Your task to perform on an android device: delete the emails in spam in the gmail app Image 0: 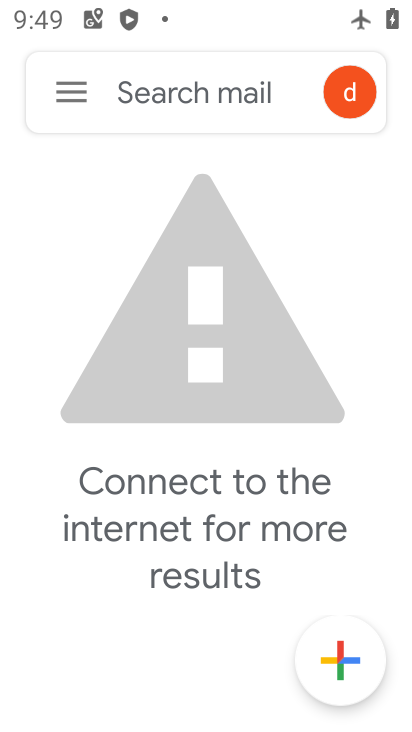
Step 0: press home button
Your task to perform on an android device: delete the emails in spam in the gmail app Image 1: 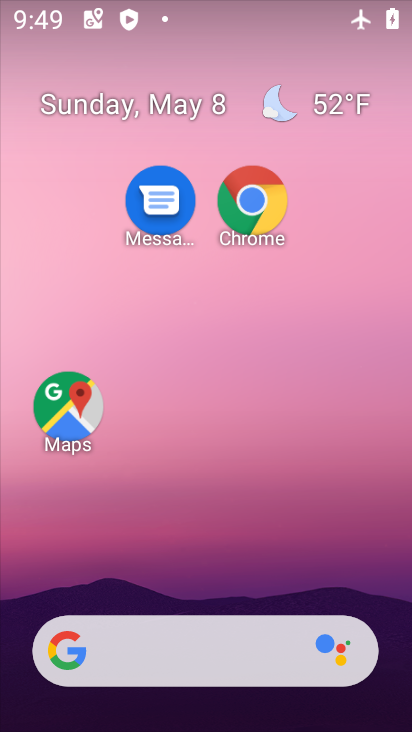
Step 1: drag from (216, 605) to (255, 6)
Your task to perform on an android device: delete the emails in spam in the gmail app Image 2: 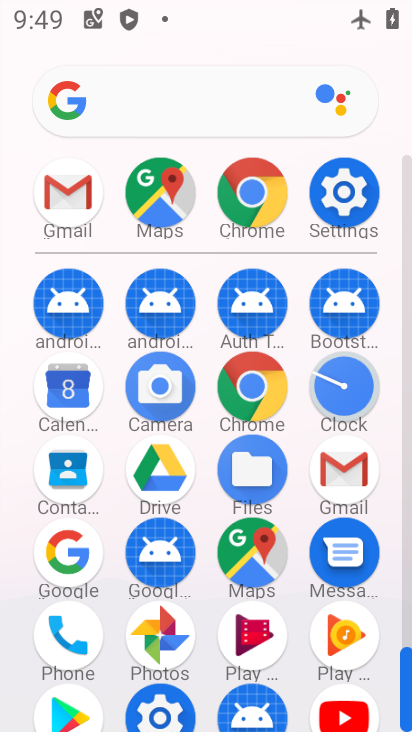
Step 2: click (345, 460)
Your task to perform on an android device: delete the emails in spam in the gmail app Image 3: 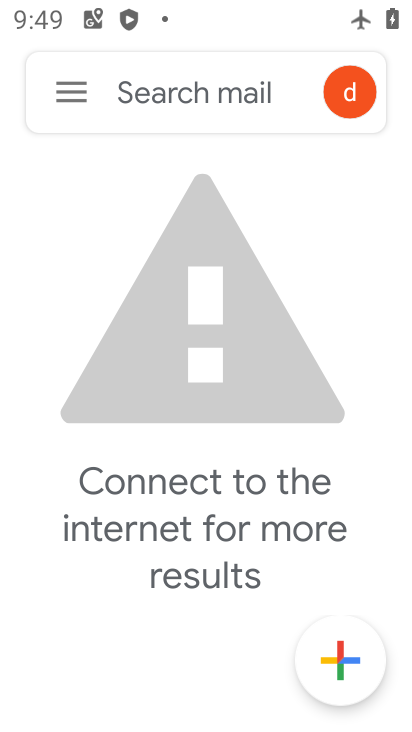
Step 3: click (67, 86)
Your task to perform on an android device: delete the emails in spam in the gmail app Image 4: 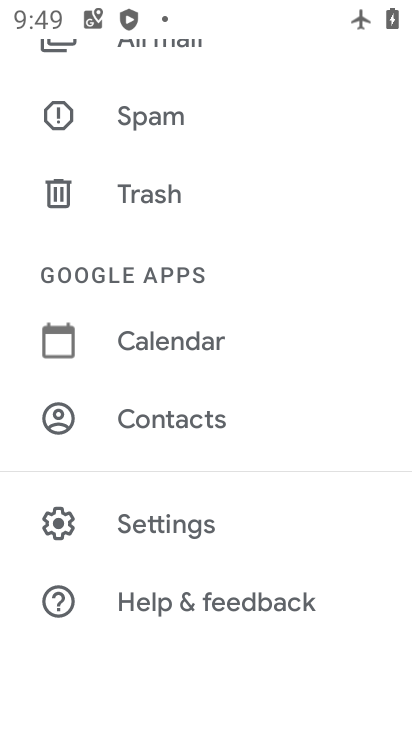
Step 4: click (164, 543)
Your task to perform on an android device: delete the emails in spam in the gmail app Image 5: 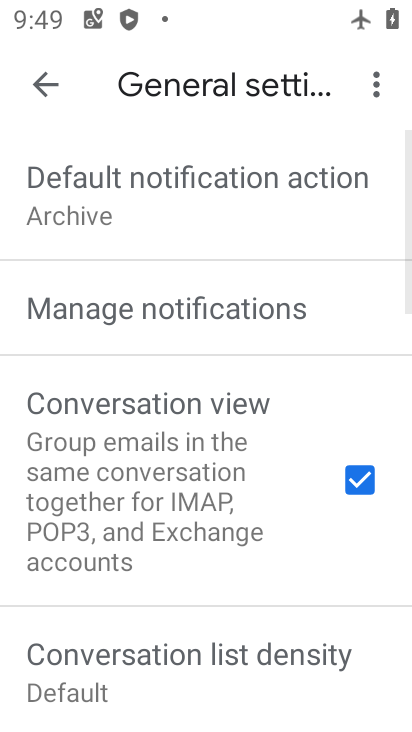
Step 5: click (56, 86)
Your task to perform on an android device: delete the emails in spam in the gmail app Image 6: 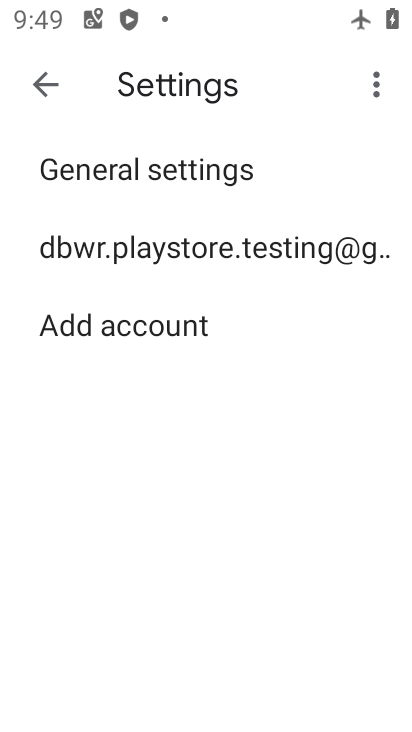
Step 6: click (32, 91)
Your task to perform on an android device: delete the emails in spam in the gmail app Image 7: 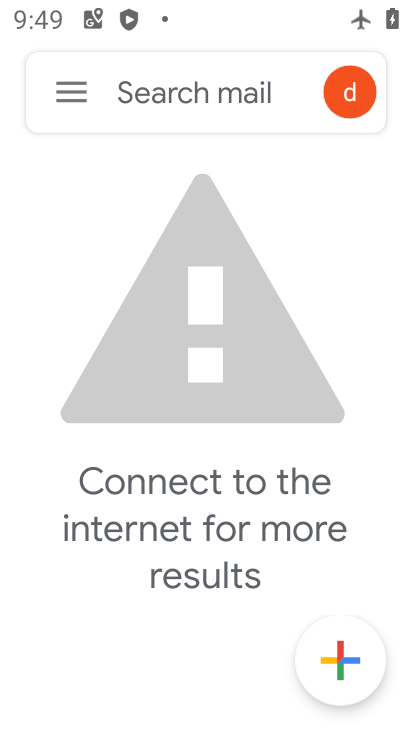
Step 7: click (62, 90)
Your task to perform on an android device: delete the emails in spam in the gmail app Image 8: 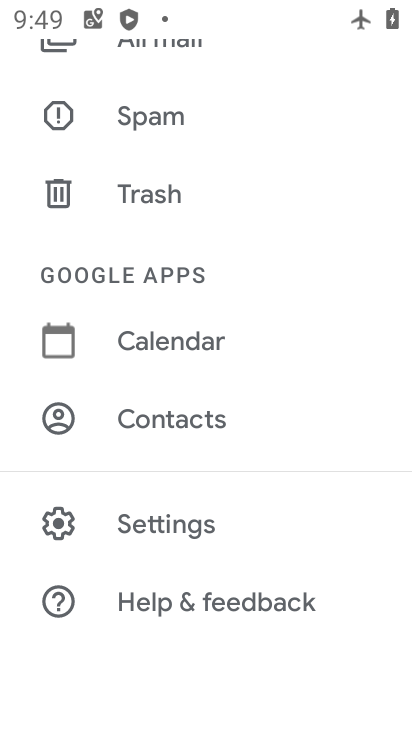
Step 8: click (129, 126)
Your task to perform on an android device: delete the emails in spam in the gmail app Image 9: 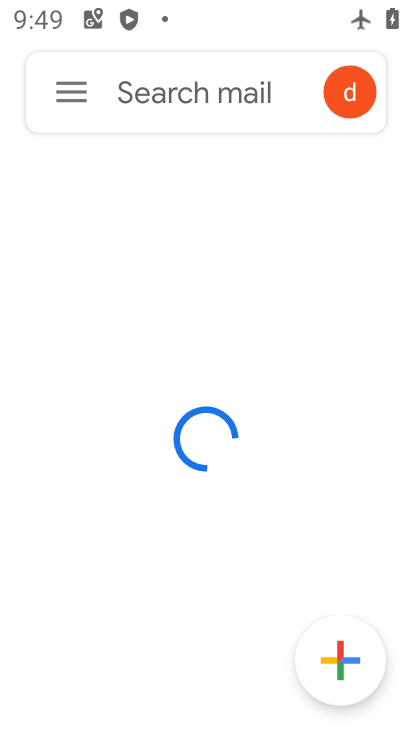
Step 9: task complete